Your task to perform on an android device: refresh tabs in the chrome app Image 0: 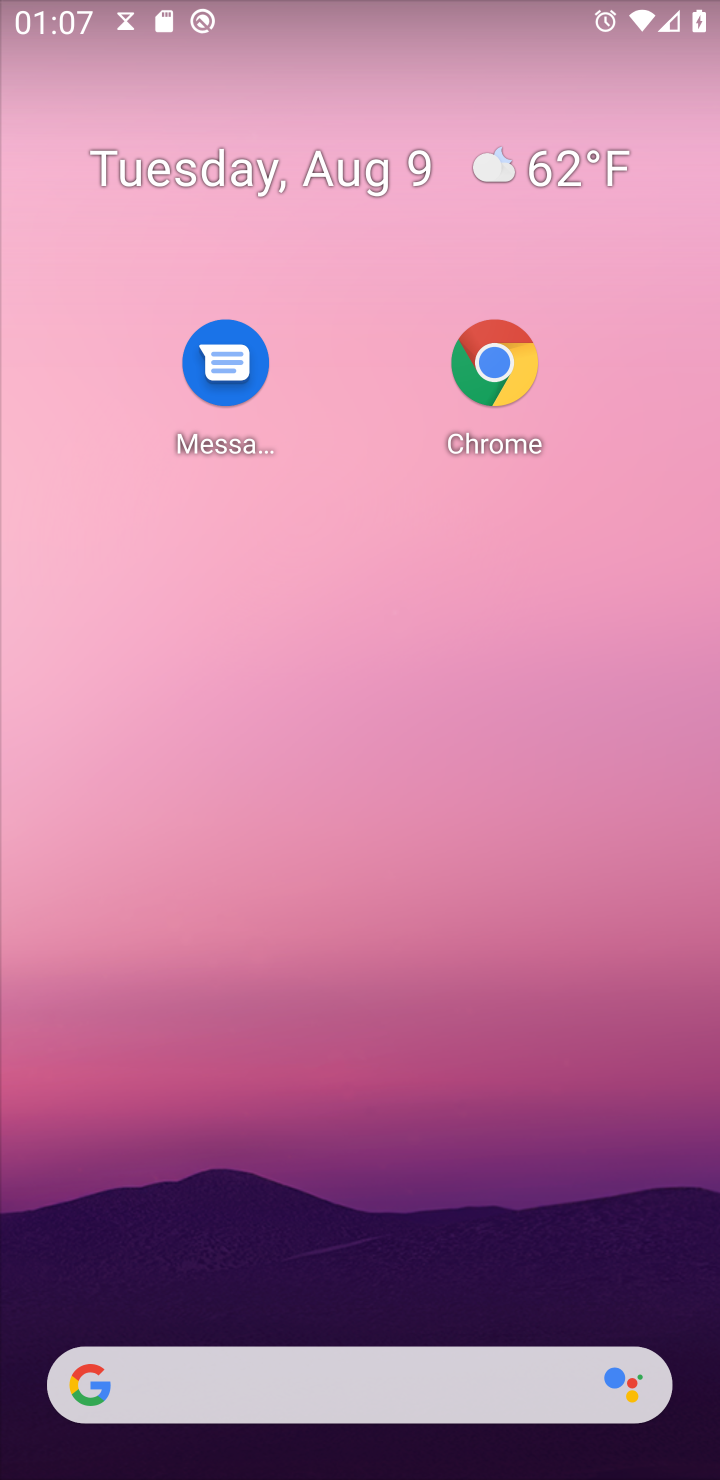
Step 0: drag from (460, 823) to (491, 593)
Your task to perform on an android device: refresh tabs in the chrome app Image 1: 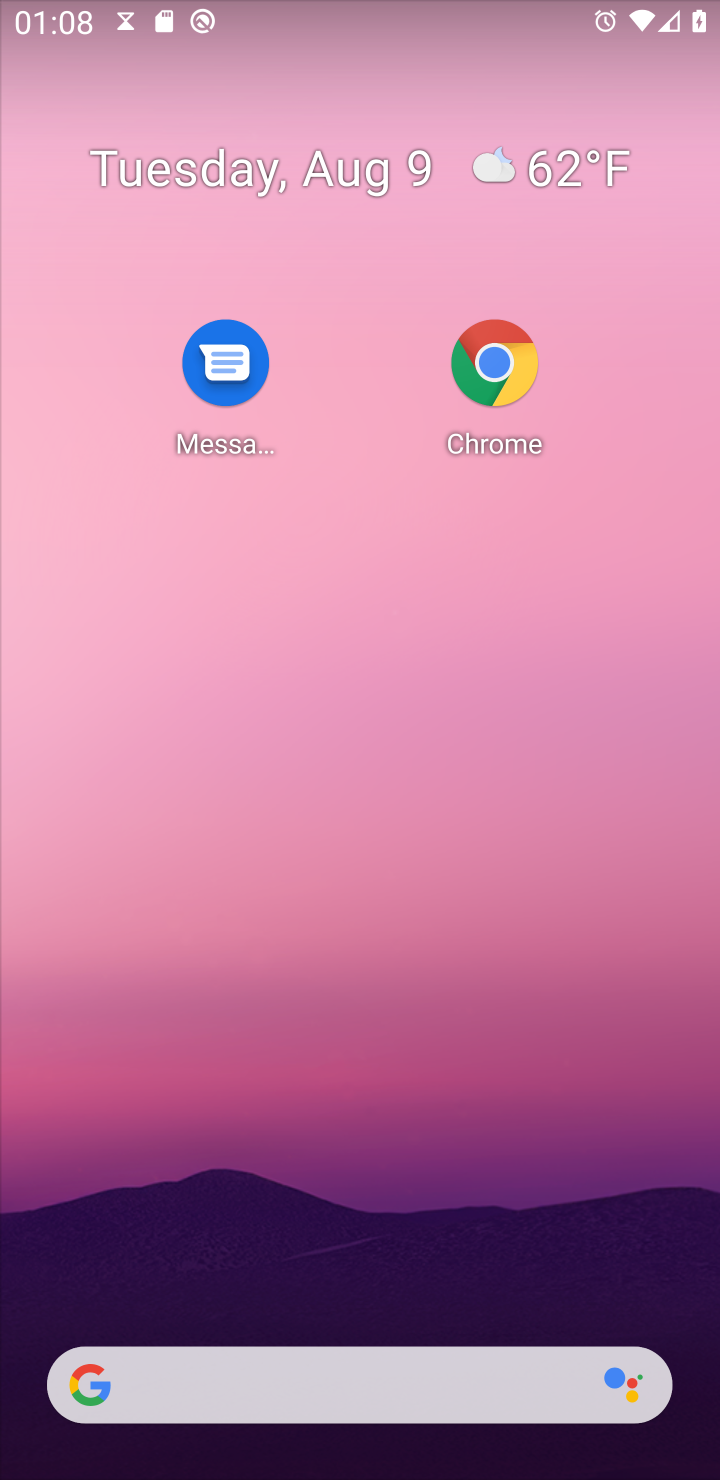
Step 1: drag from (371, 1267) to (394, 385)
Your task to perform on an android device: refresh tabs in the chrome app Image 2: 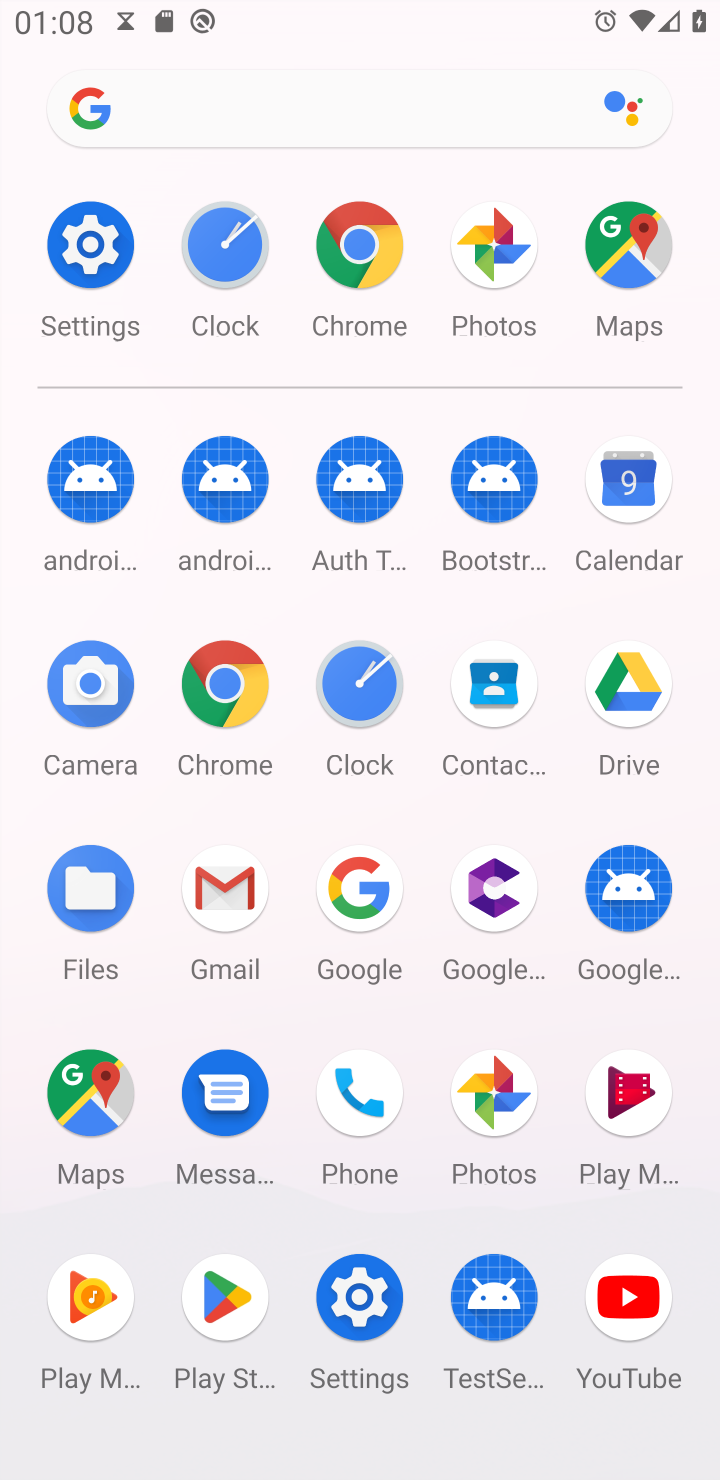
Step 2: click (234, 681)
Your task to perform on an android device: refresh tabs in the chrome app Image 3: 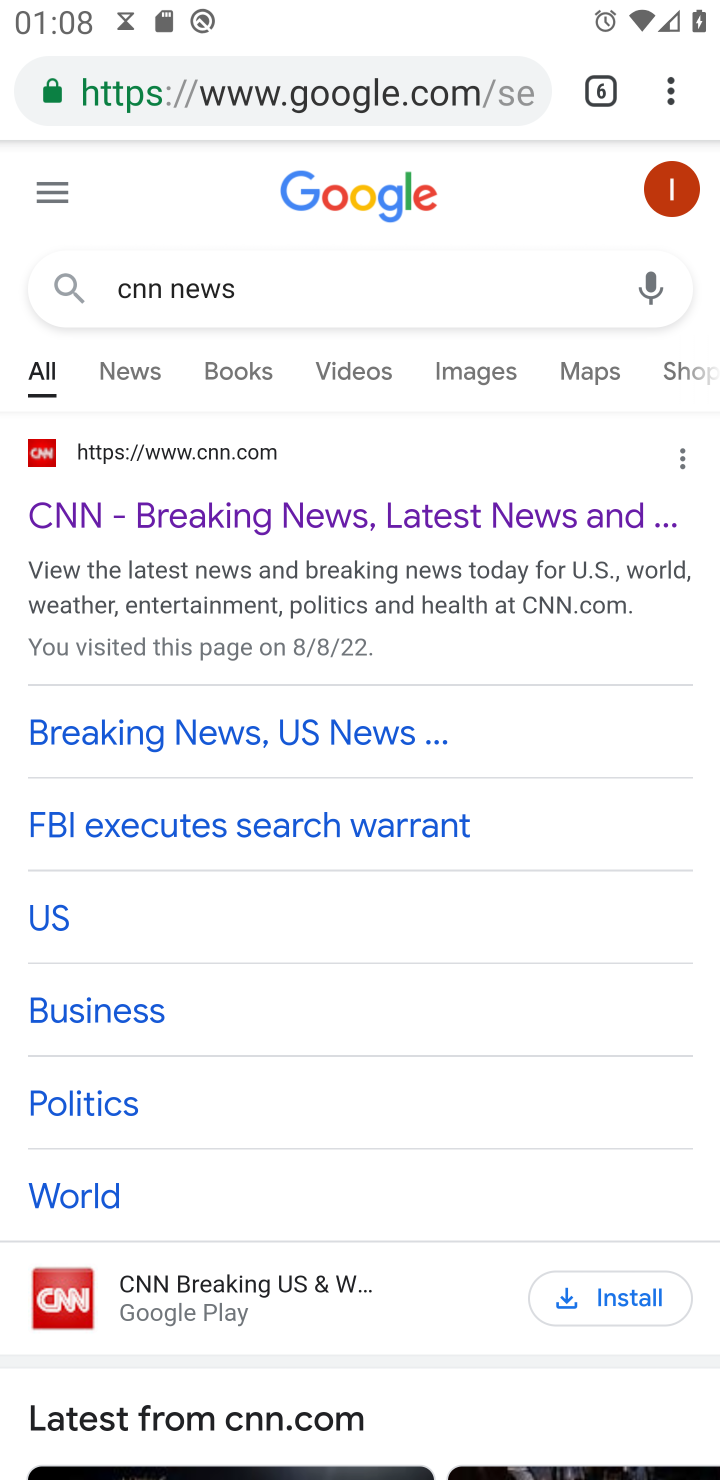
Step 3: click (670, 99)
Your task to perform on an android device: refresh tabs in the chrome app Image 4: 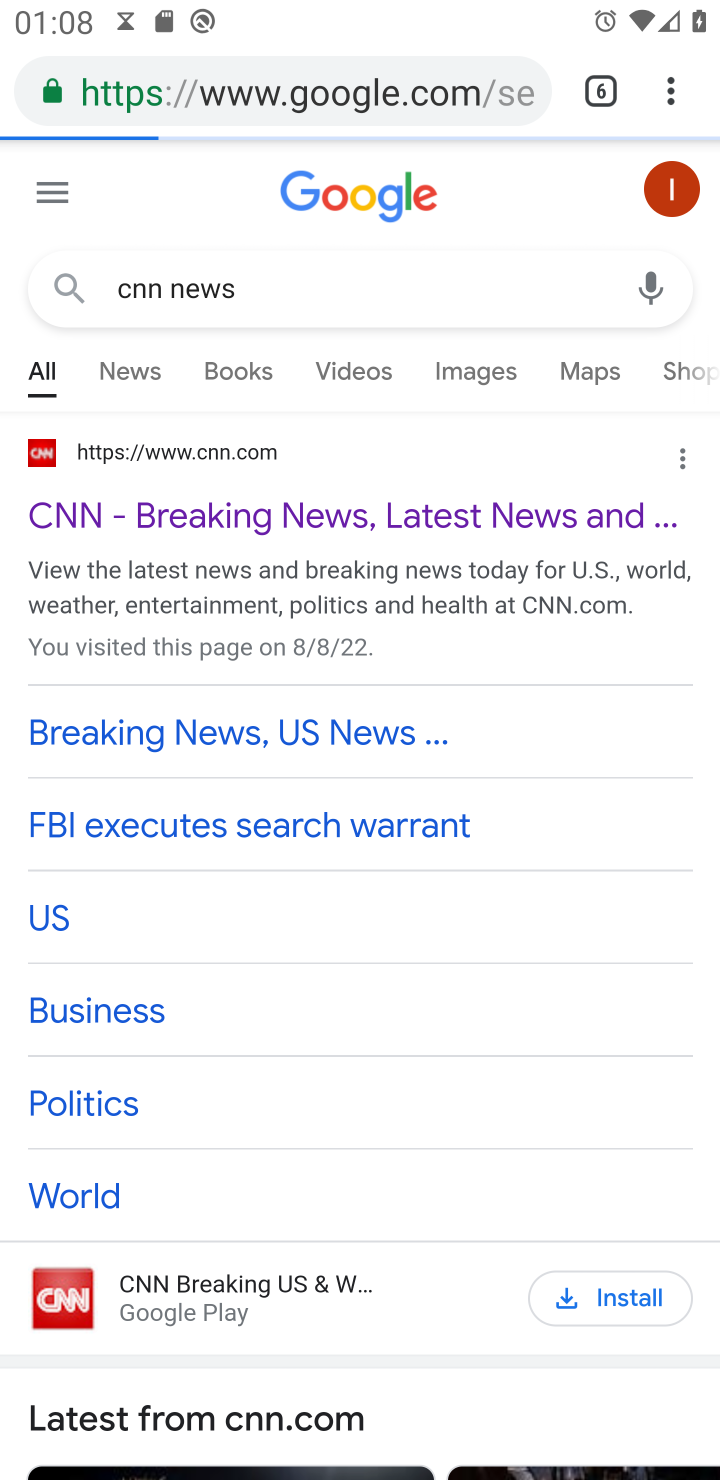
Step 4: click (670, 99)
Your task to perform on an android device: refresh tabs in the chrome app Image 5: 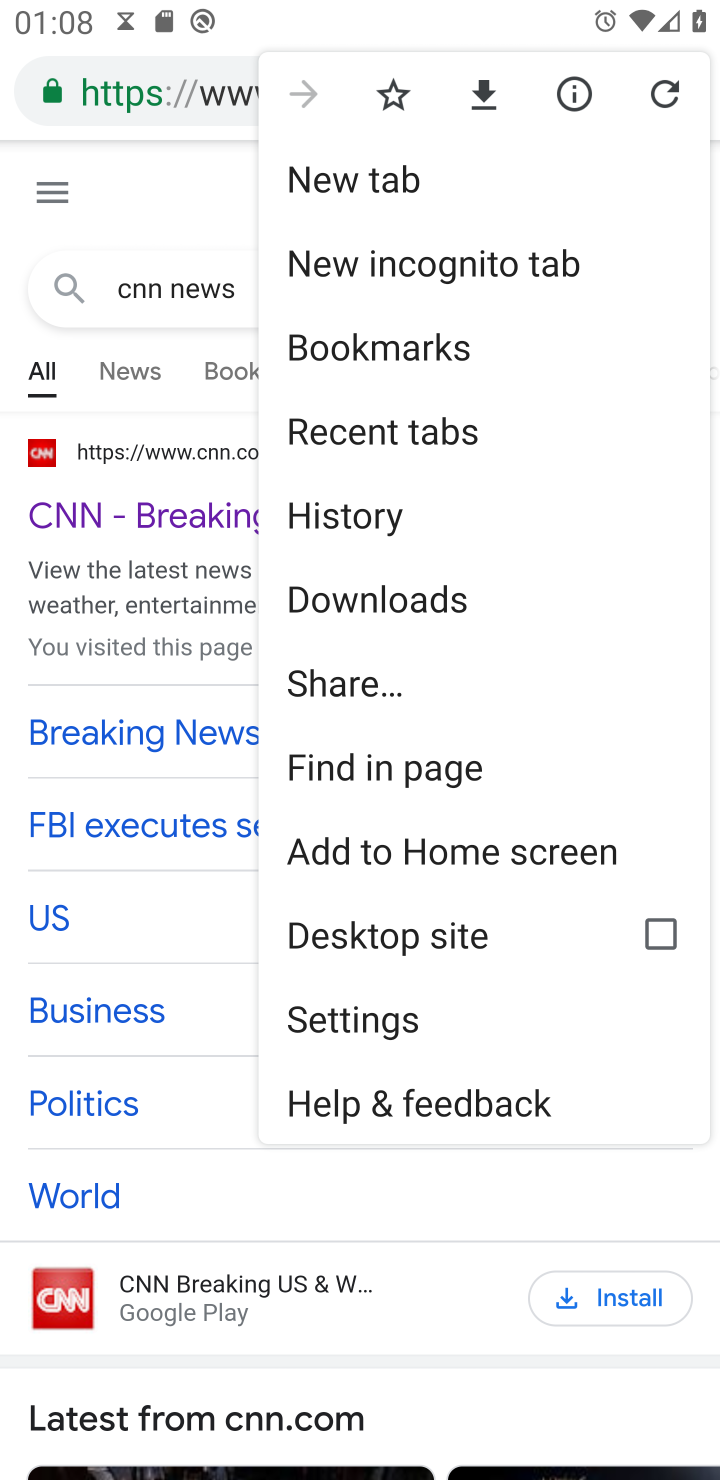
Step 5: click (637, 87)
Your task to perform on an android device: refresh tabs in the chrome app Image 6: 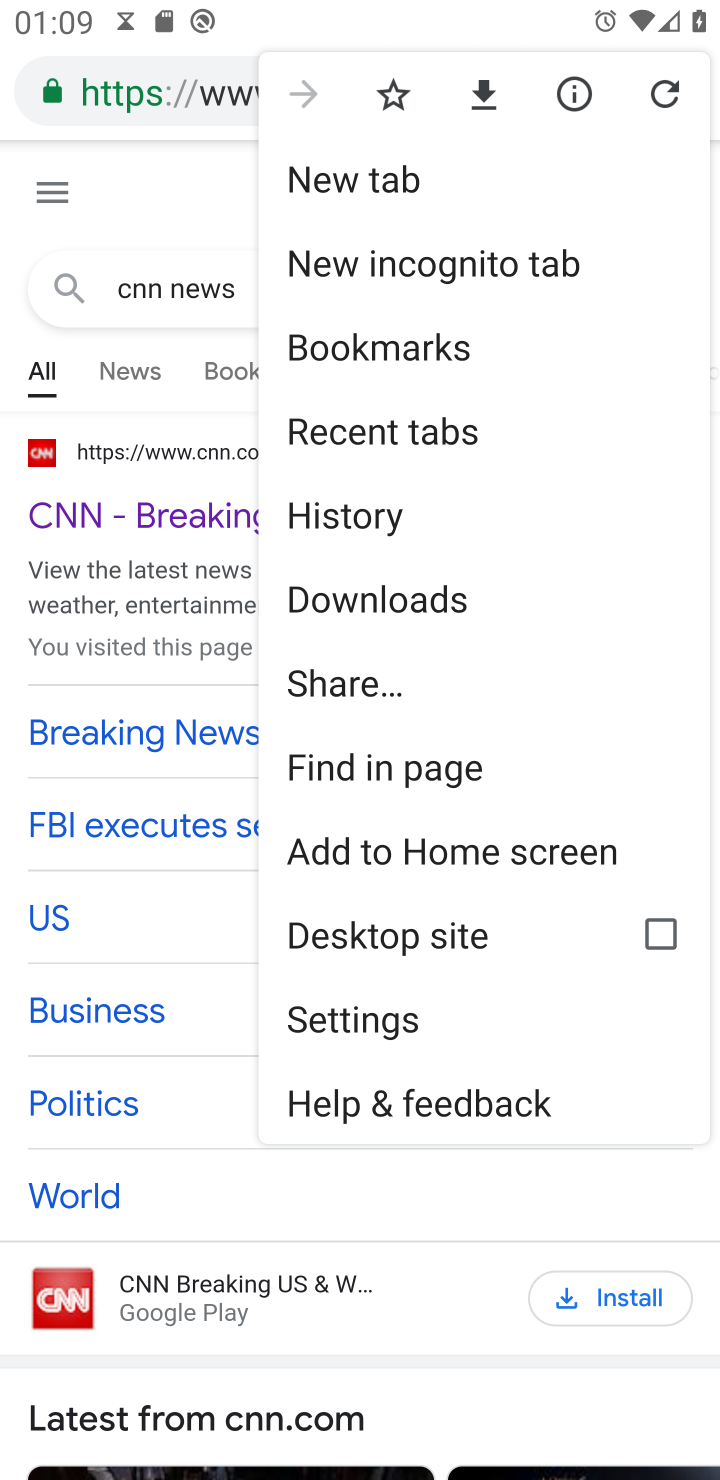
Step 6: click (657, 81)
Your task to perform on an android device: refresh tabs in the chrome app Image 7: 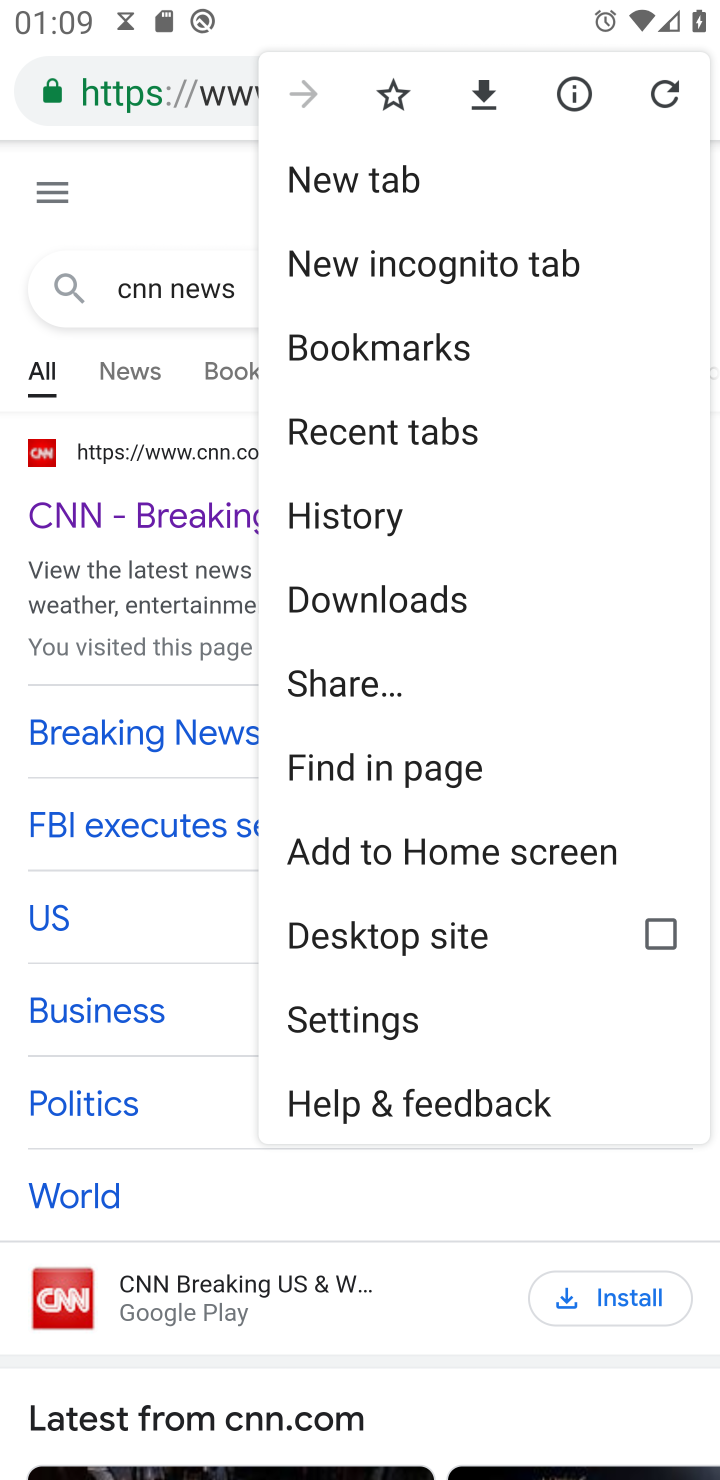
Step 7: task complete